Your task to perform on an android device: Go to Reddit.com Image 0: 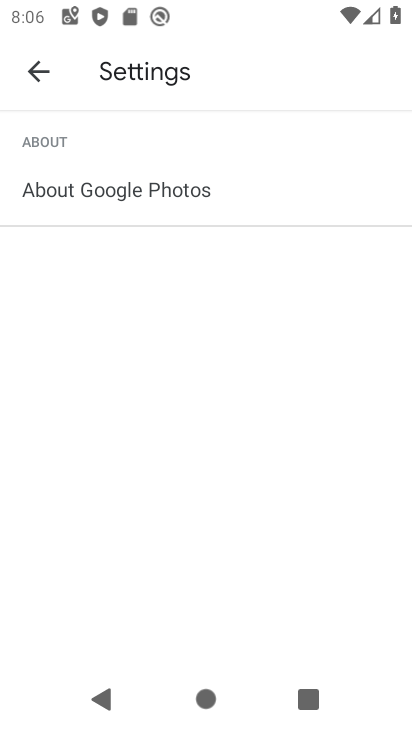
Step 0: press home button
Your task to perform on an android device: Go to Reddit.com Image 1: 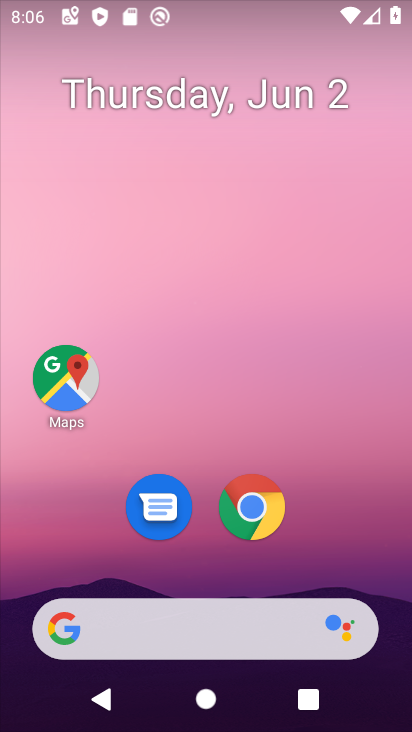
Step 1: click (167, 630)
Your task to perform on an android device: Go to Reddit.com Image 2: 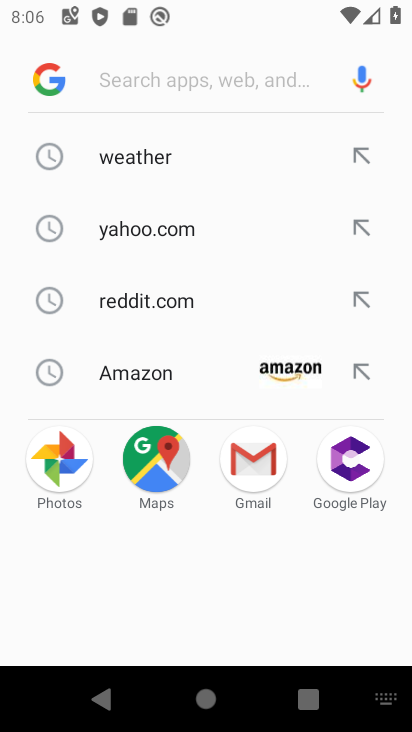
Step 2: type "Reddit.com"
Your task to perform on an android device: Go to Reddit.com Image 3: 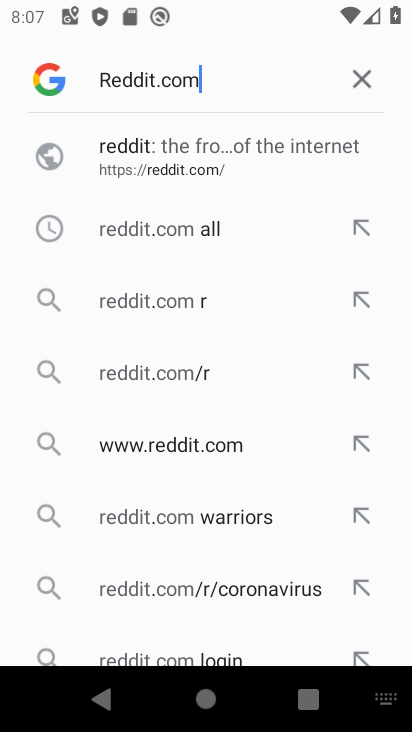
Step 3: click (225, 156)
Your task to perform on an android device: Go to Reddit.com Image 4: 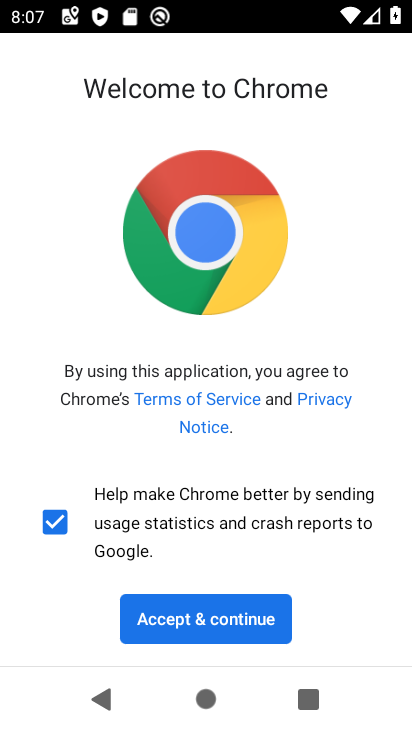
Step 4: click (196, 633)
Your task to perform on an android device: Go to Reddit.com Image 5: 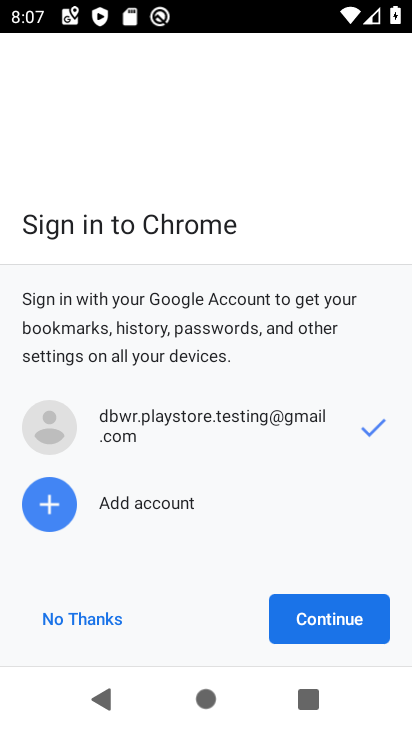
Step 5: click (360, 611)
Your task to perform on an android device: Go to Reddit.com Image 6: 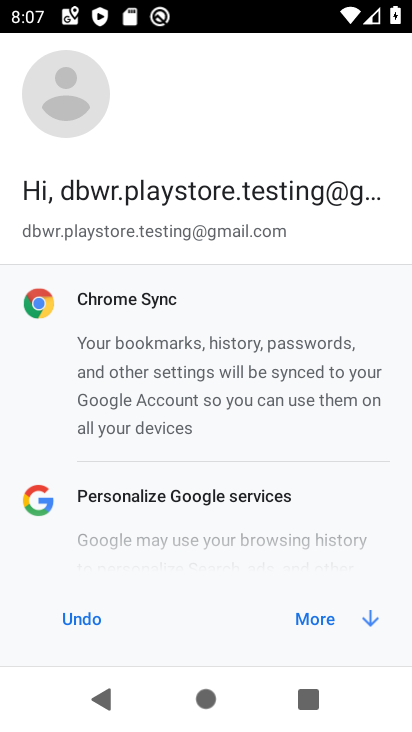
Step 6: click (332, 627)
Your task to perform on an android device: Go to Reddit.com Image 7: 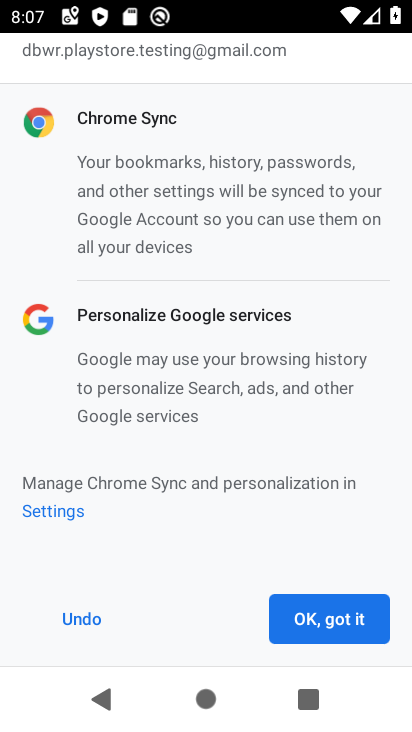
Step 7: click (332, 627)
Your task to perform on an android device: Go to Reddit.com Image 8: 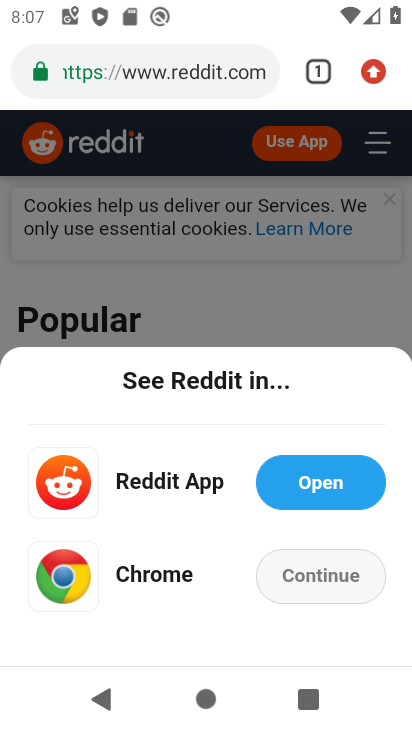
Step 8: click (339, 567)
Your task to perform on an android device: Go to Reddit.com Image 9: 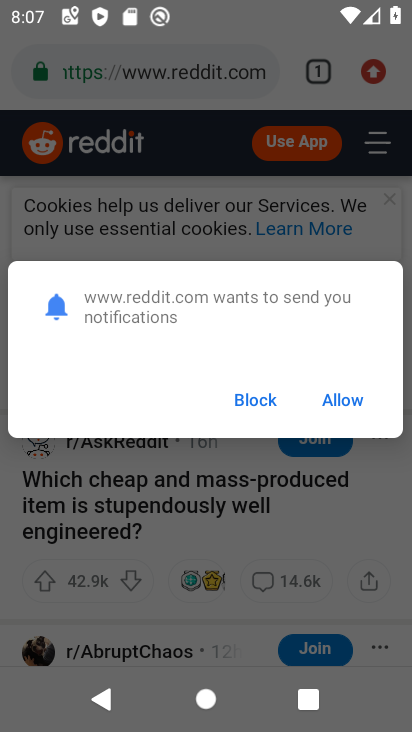
Step 9: click (356, 411)
Your task to perform on an android device: Go to Reddit.com Image 10: 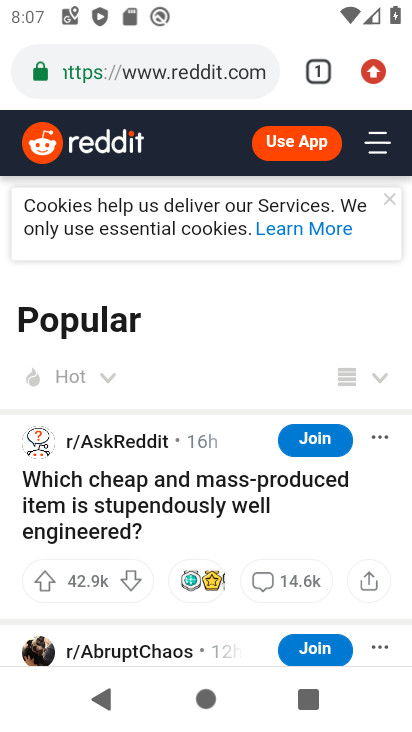
Step 10: click (356, 413)
Your task to perform on an android device: Go to Reddit.com Image 11: 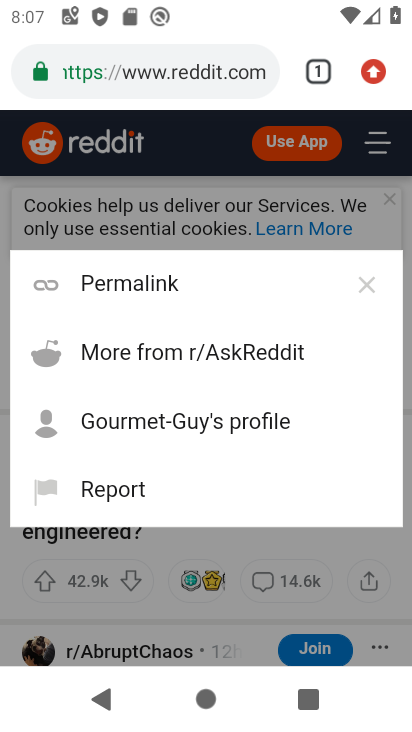
Step 11: click (372, 284)
Your task to perform on an android device: Go to Reddit.com Image 12: 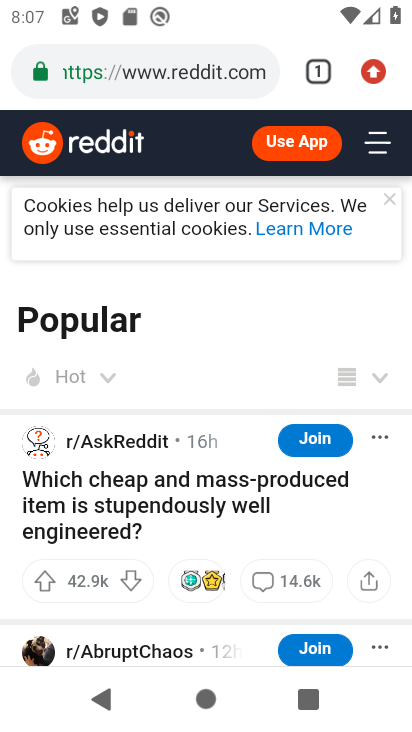
Step 12: task complete